Your task to perform on an android device: Search for "apple airpods pro" on newegg, select the first entry, and add it to the cart. Image 0: 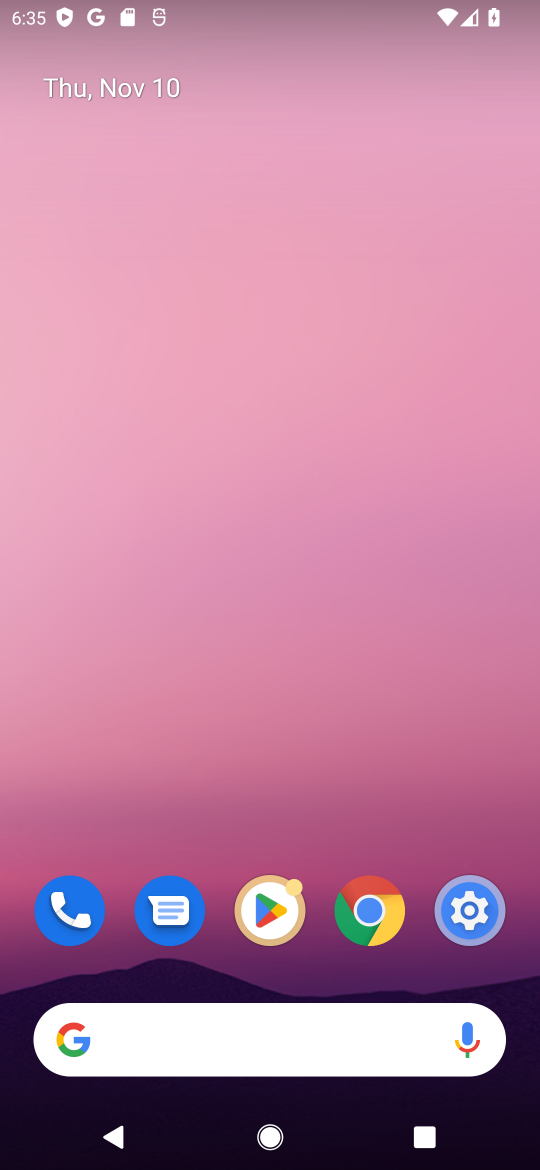
Step 0: click (368, 907)
Your task to perform on an android device: Search for "apple airpods pro" on newegg, select the first entry, and add it to the cart. Image 1: 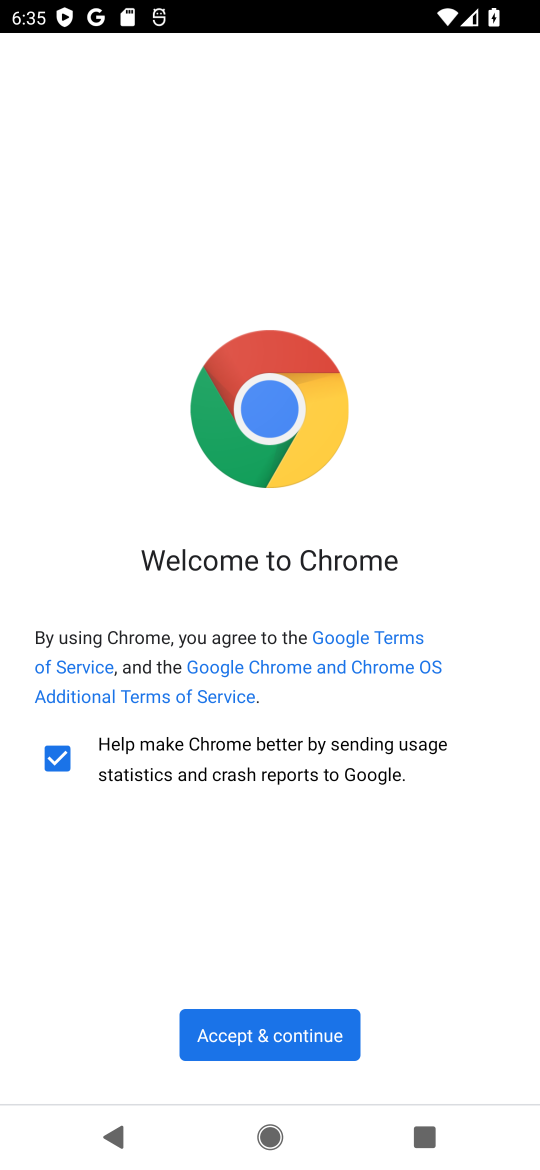
Step 1: click (284, 1025)
Your task to perform on an android device: Search for "apple airpods pro" on newegg, select the first entry, and add it to the cart. Image 2: 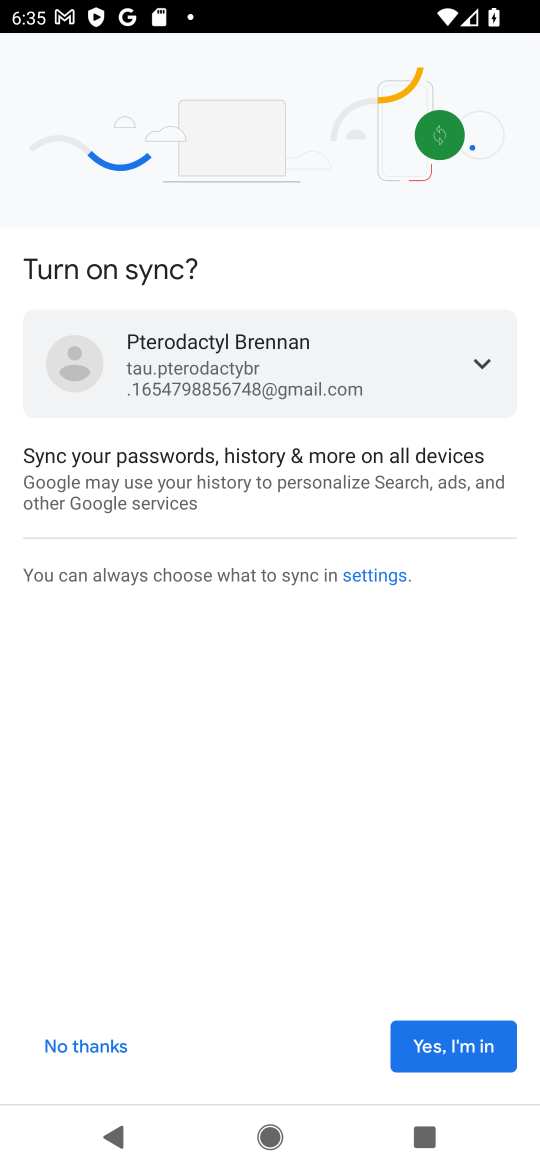
Step 2: click (432, 1041)
Your task to perform on an android device: Search for "apple airpods pro" on newegg, select the first entry, and add it to the cart. Image 3: 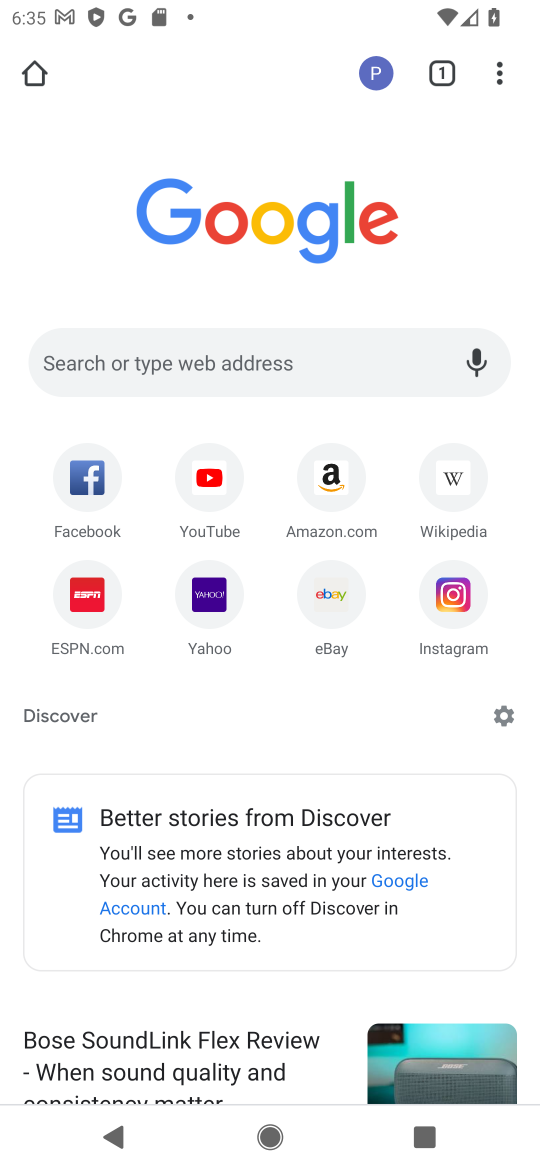
Step 3: click (247, 366)
Your task to perform on an android device: Search for "apple airpods pro" on newegg, select the first entry, and add it to the cart. Image 4: 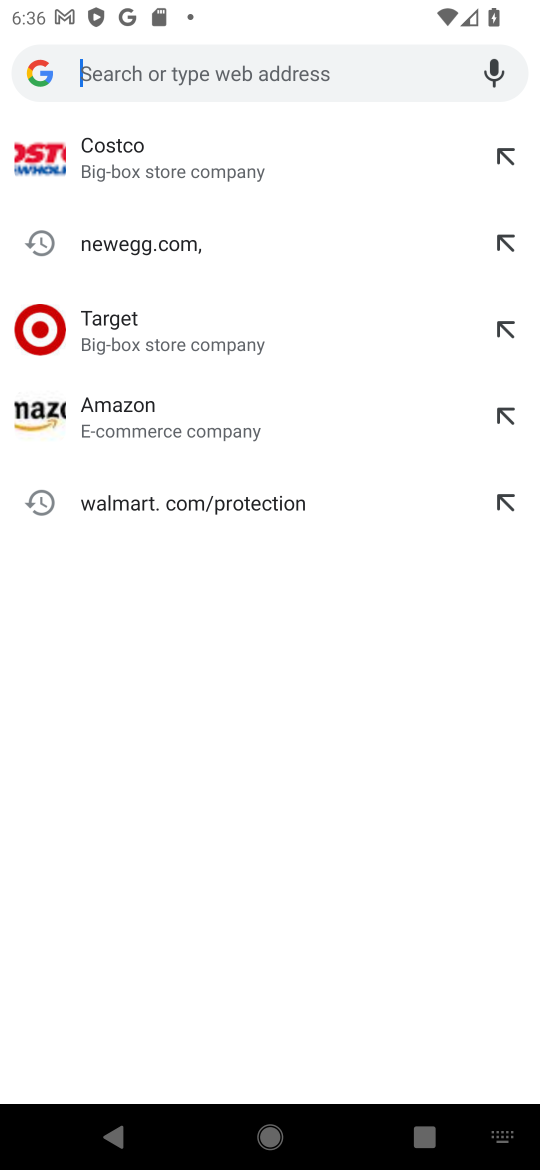
Step 4: type "newegg"
Your task to perform on an android device: Search for "apple airpods pro" on newegg, select the first entry, and add it to the cart. Image 5: 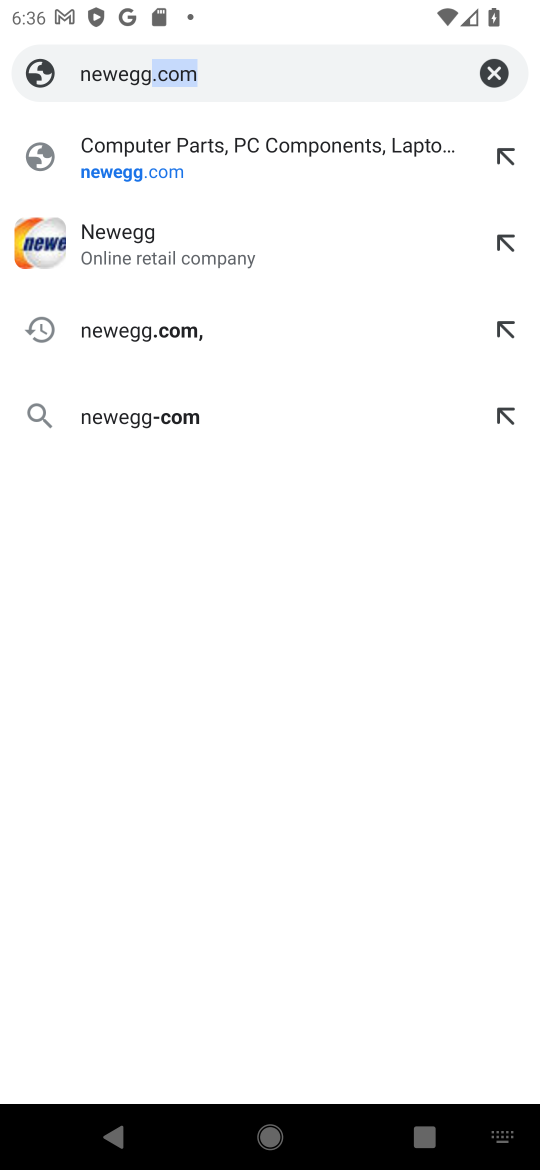
Step 5: click (157, 255)
Your task to perform on an android device: Search for "apple airpods pro" on newegg, select the first entry, and add it to the cart. Image 6: 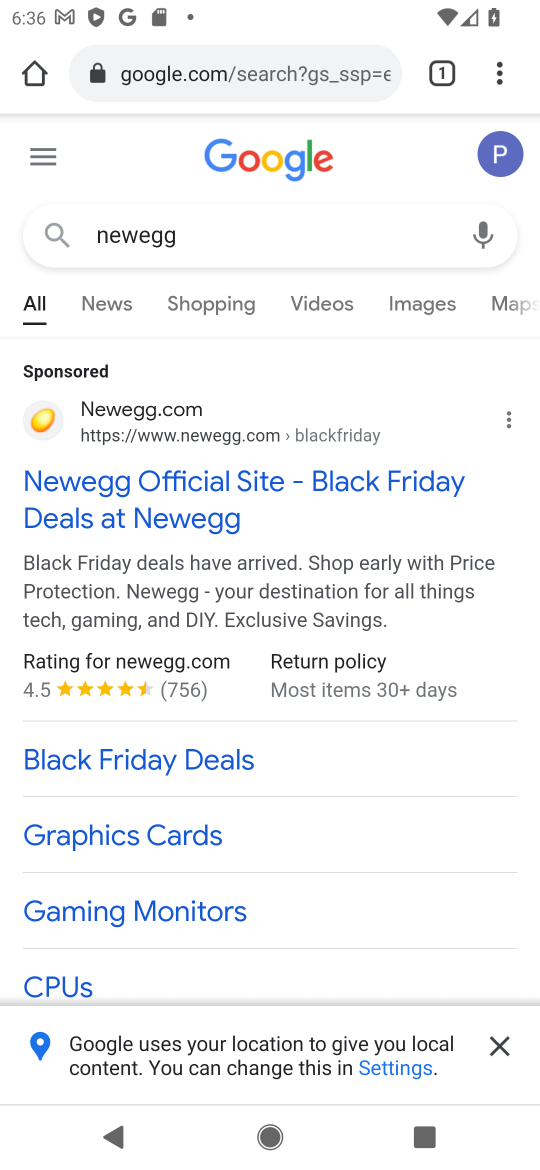
Step 6: drag from (244, 799) to (262, 367)
Your task to perform on an android device: Search for "apple airpods pro" on newegg, select the first entry, and add it to the cart. Image 7: 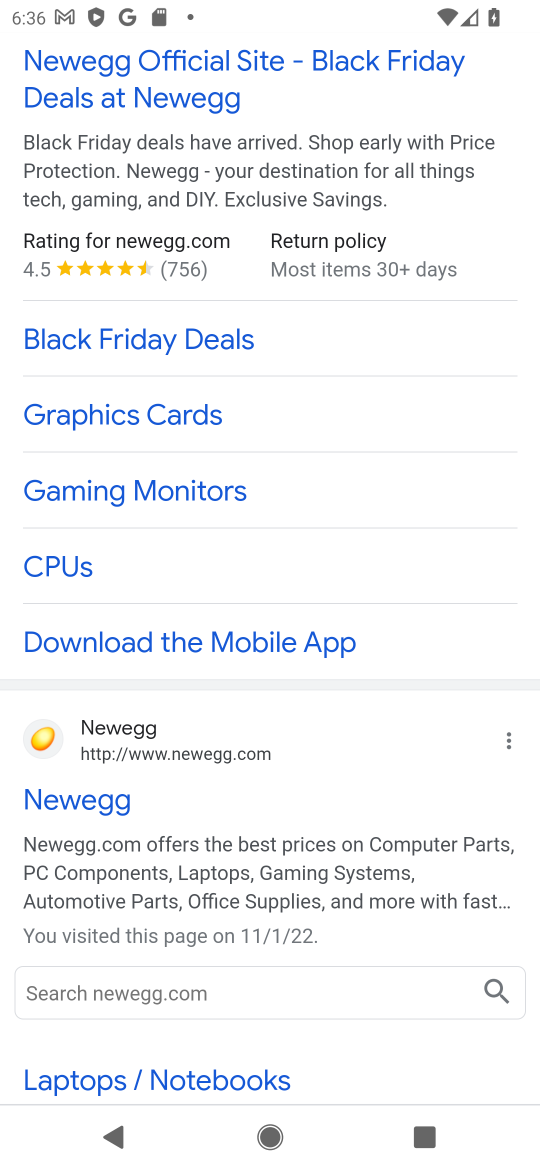
Step 7: click (123, 771)
Your task to perform on an android device: Search for "apple airpods pro" on newegg, select the first entry, and add it to the cart. Image 8: 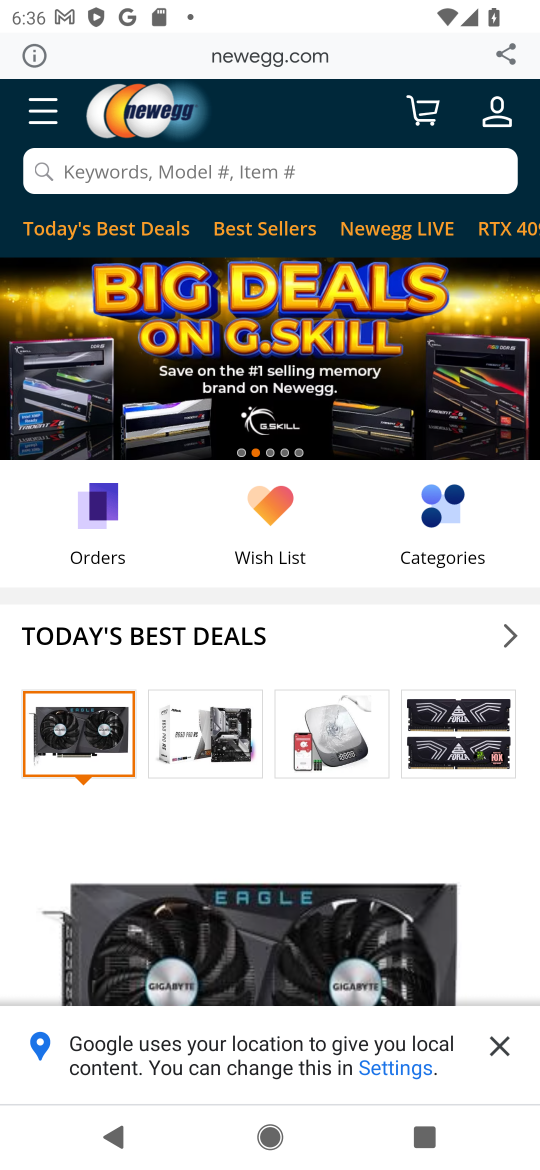
Step 8: click (296, 165)
Your task to perform on an android device: Search for "apple airpods pro" on newegg, select the first entry, and add it to the cart. Image 9: 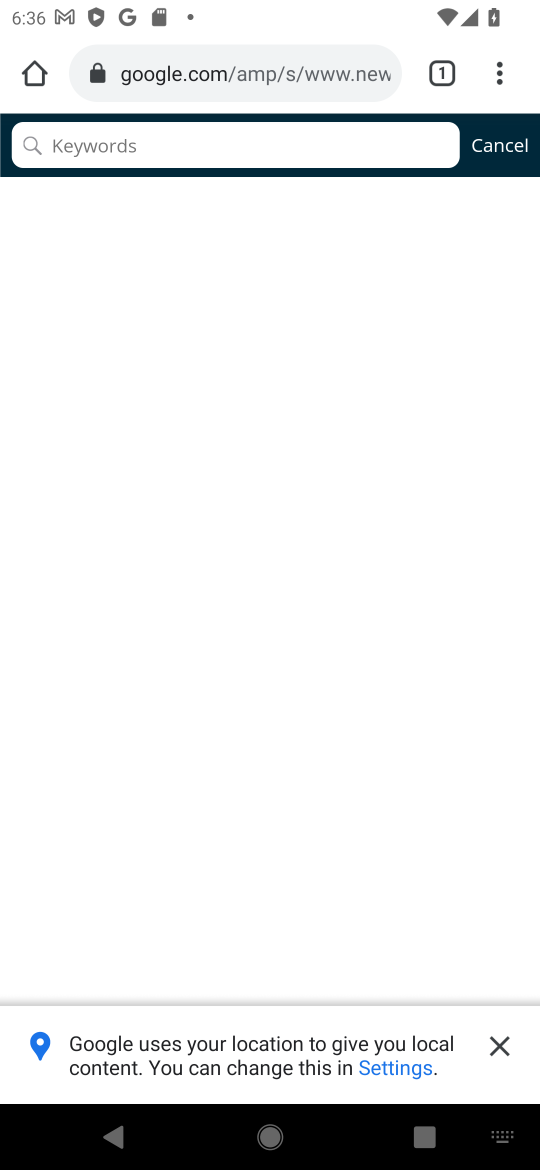
Step 9: type "apple airpods pro"
Your task to perform on an android device: Search for "apple airpods pro" on newegg, select the first entry, and add it to the cart. Image 10: 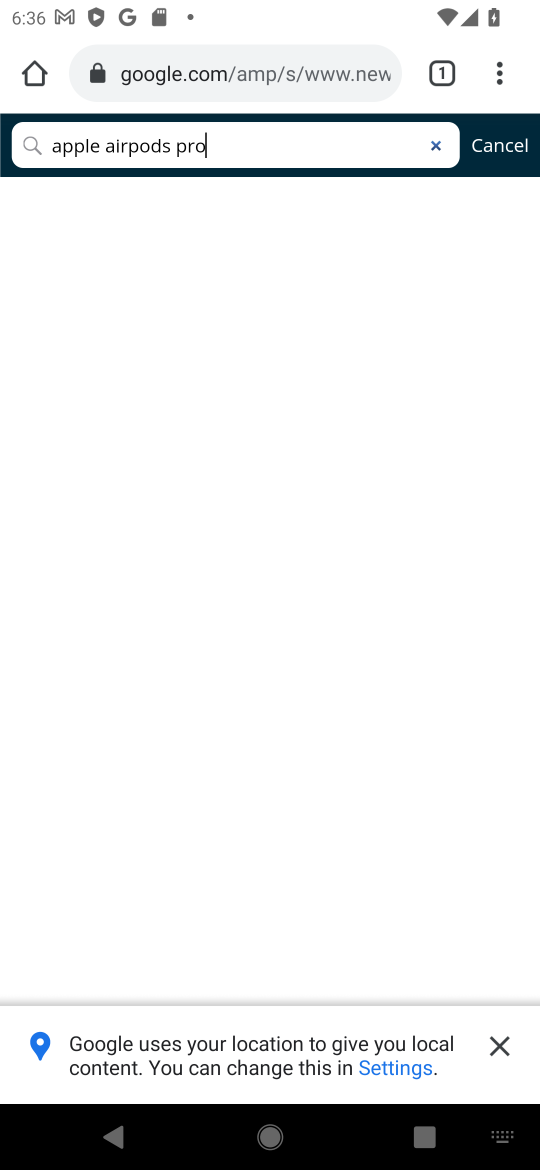
Step 10: task complete